Your task to perform on an android device: check google app version Image 0: 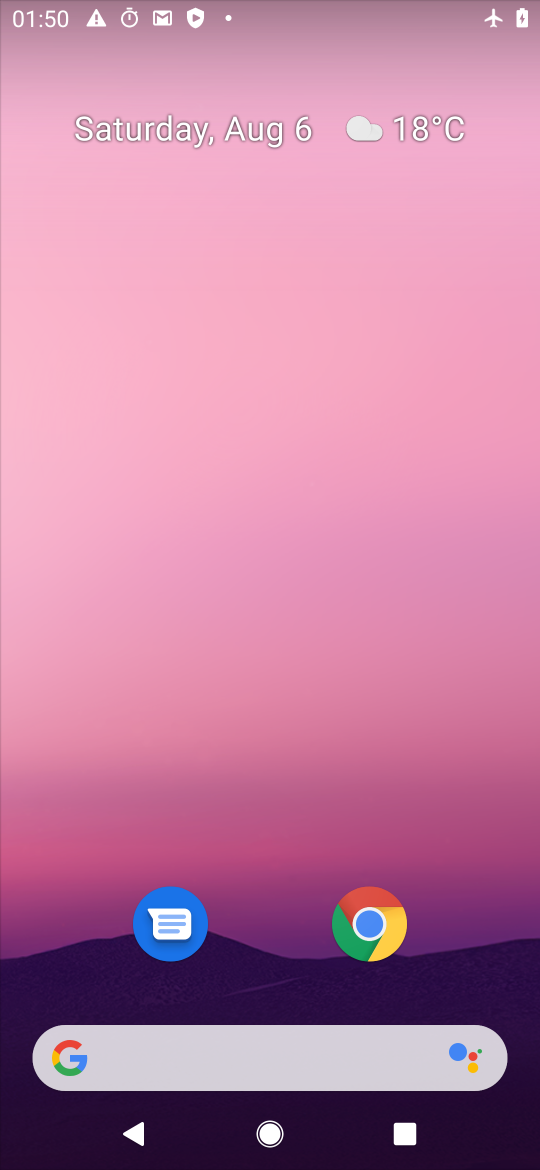
Step 0: drag from (431, 1043) to (421, 68)
Your task to perform on an android device: check google app version Image 1: 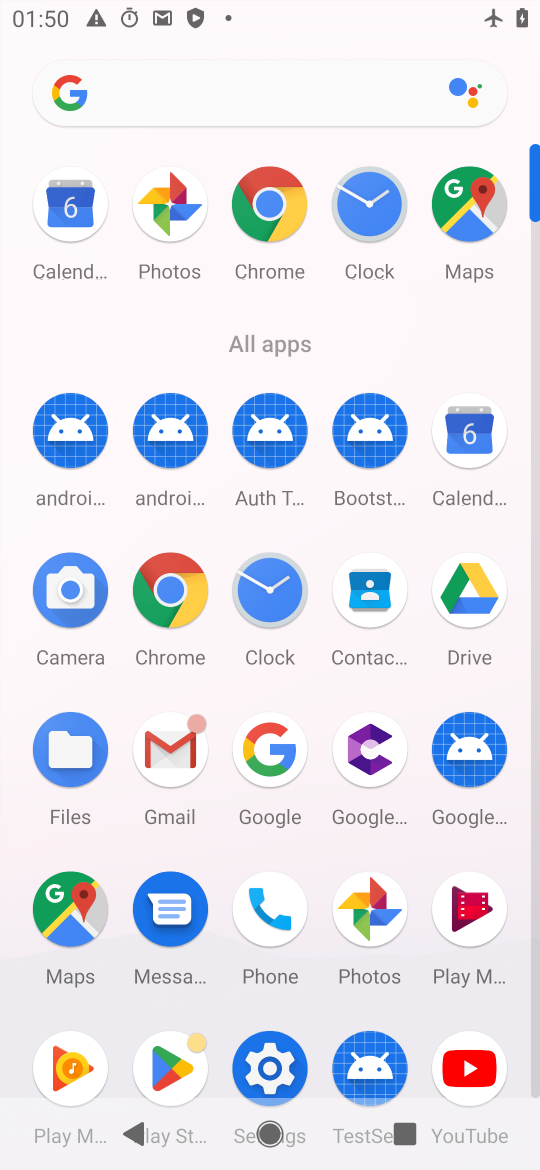
Step 1: drag from (323, 1002) to (349, 120)
Your task to perform on an android device: check google app version Image 2: 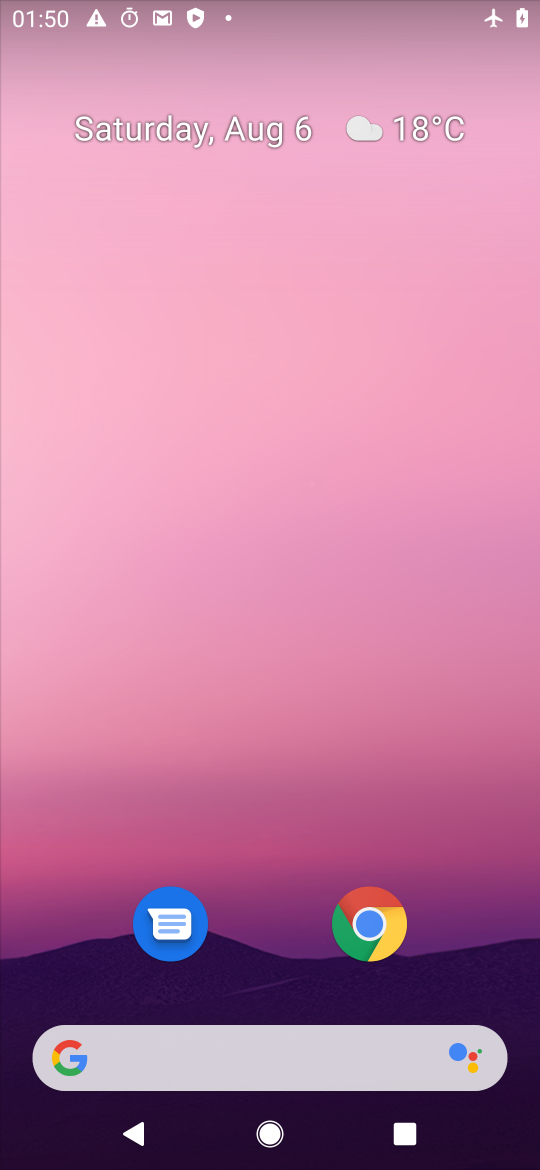
Step 2: drag from (289, 975) to (37, 22)
Your task to perform on an android device: check google app version Image 3: 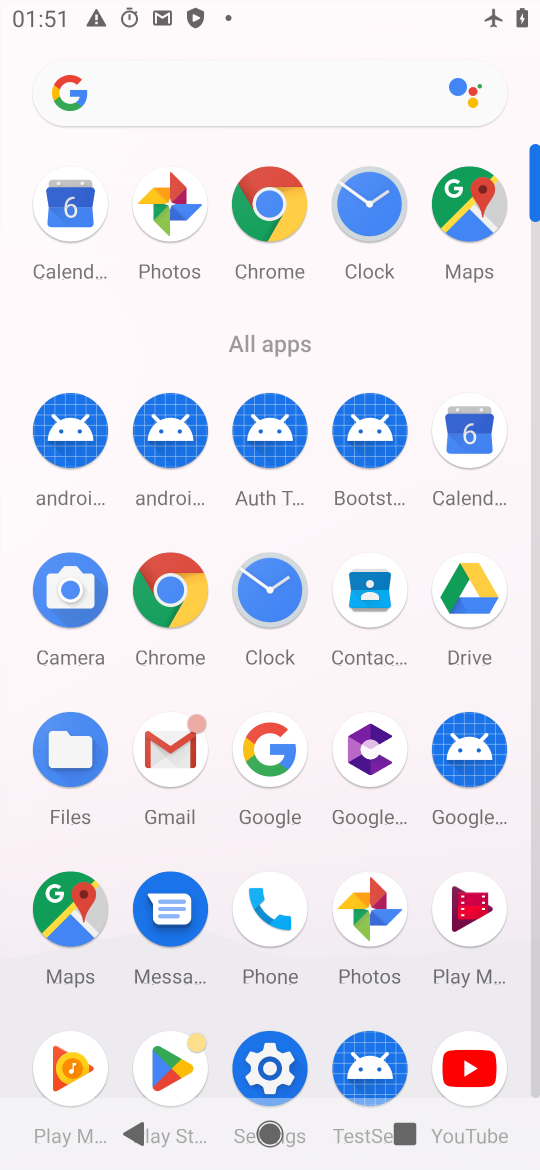
Step 3: click (171, 582)
Your task to perform on an android device: check google app version Image 4: 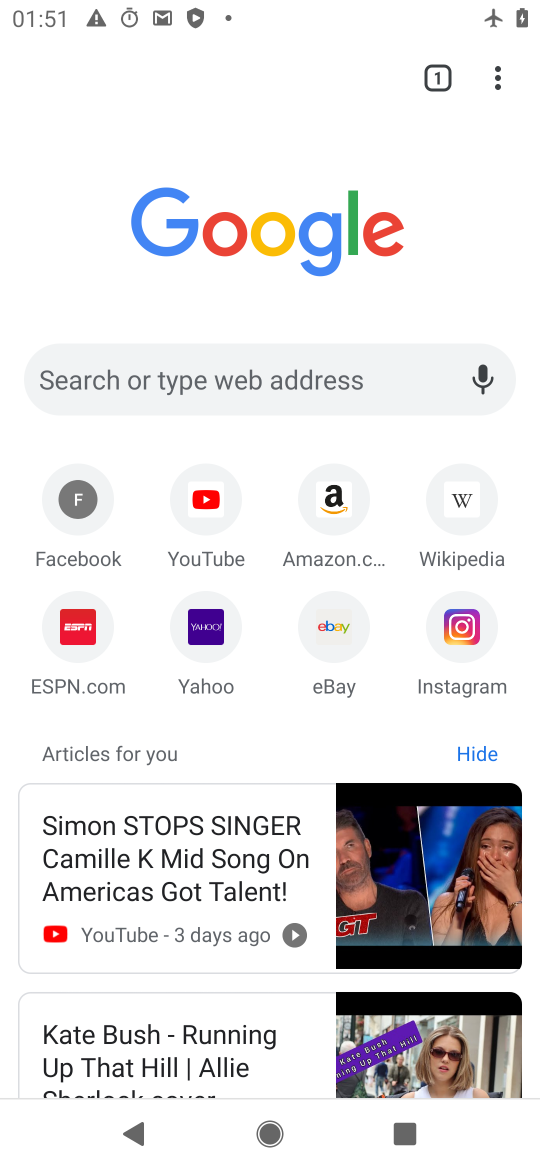
Step 4: click (498, 69)
Your task to perform on an android device: check google app version Image 5: 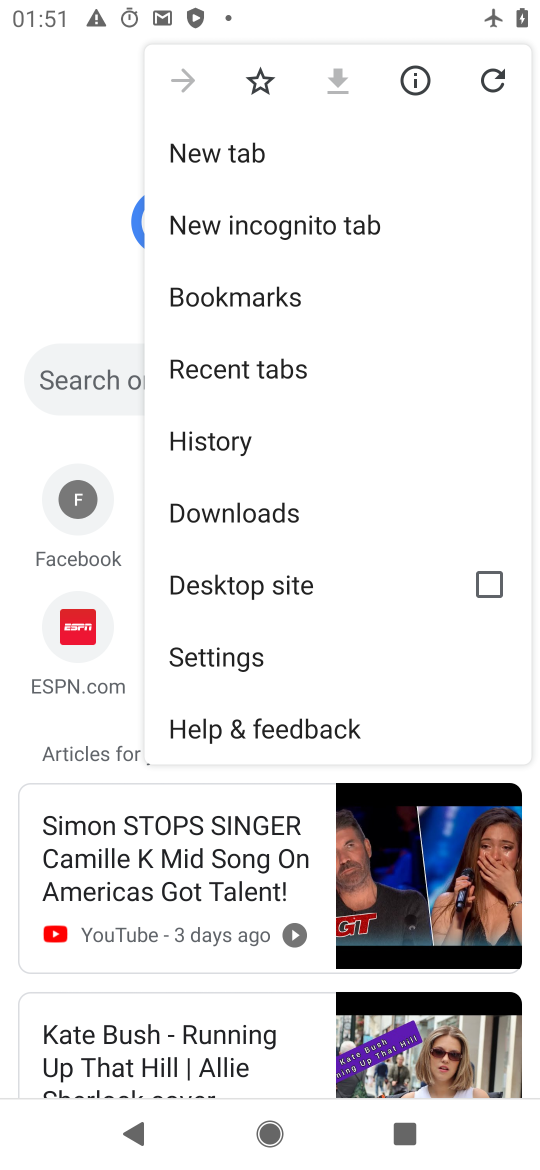
Step 5: click (263, 738)
Your task to perform on an android device: check google app version Image 6: 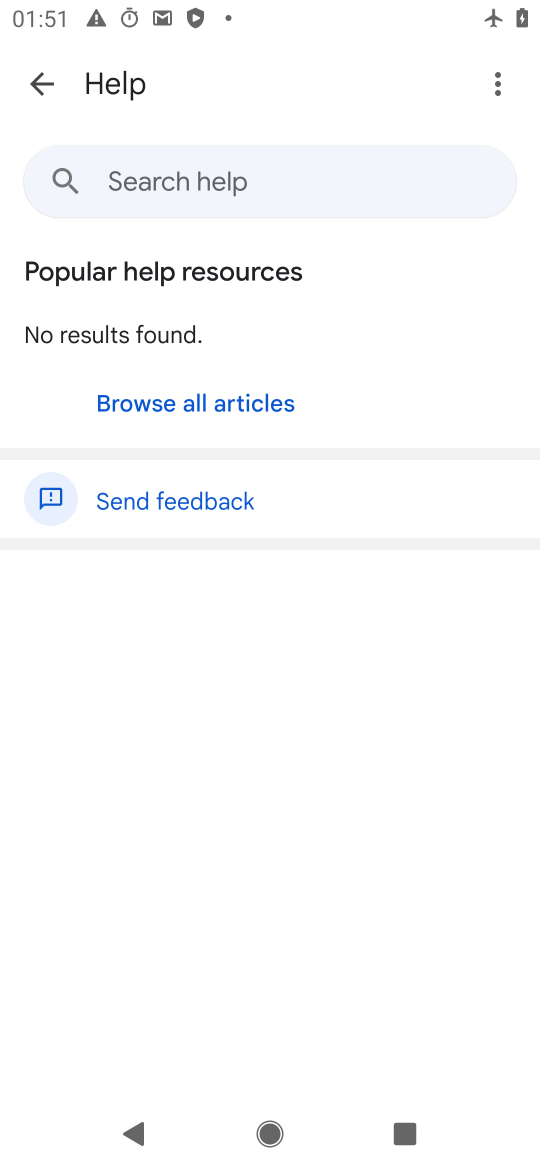
Step 6: click (507, 74)
Your task to perform on an android device: check google app version Image 7: 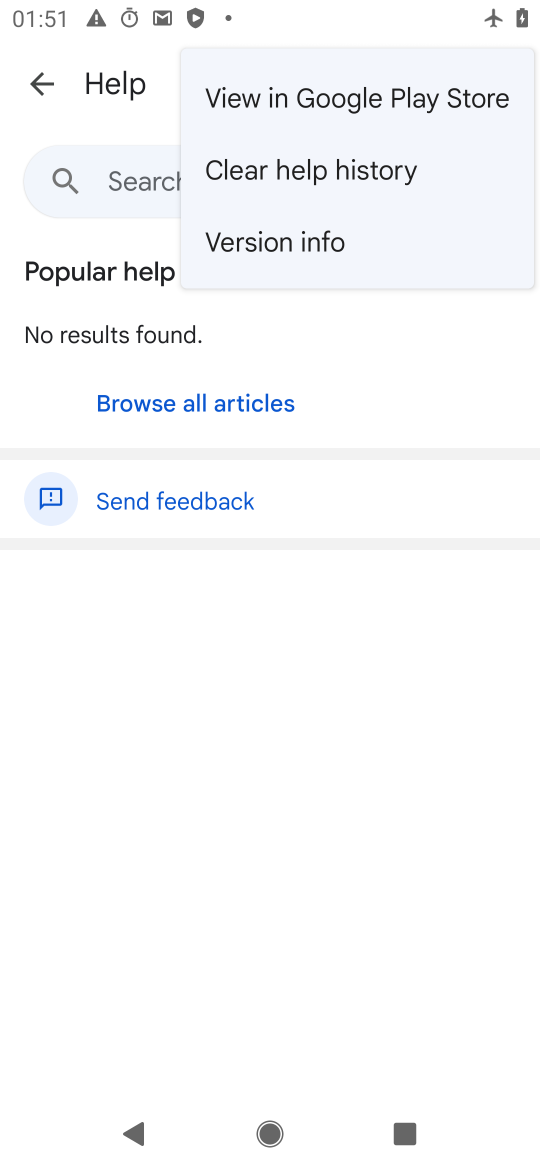
Step 7: click (303, 237)
Your task to perform on an android device: check google app version Image 8: 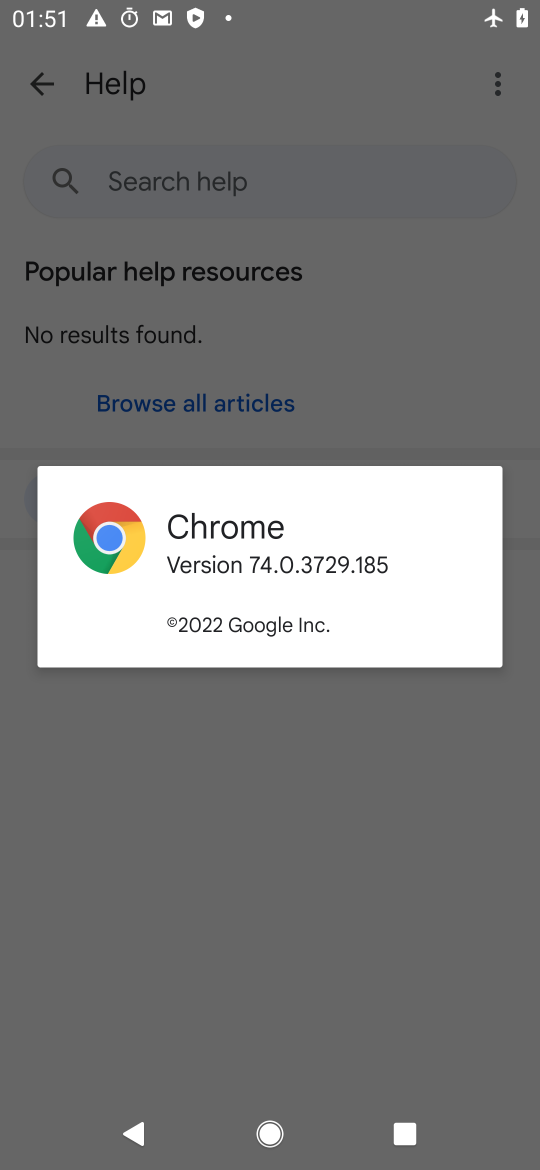
Step 8: task complete